Your task to perform on an android device: toggle sleep mode Image 0: 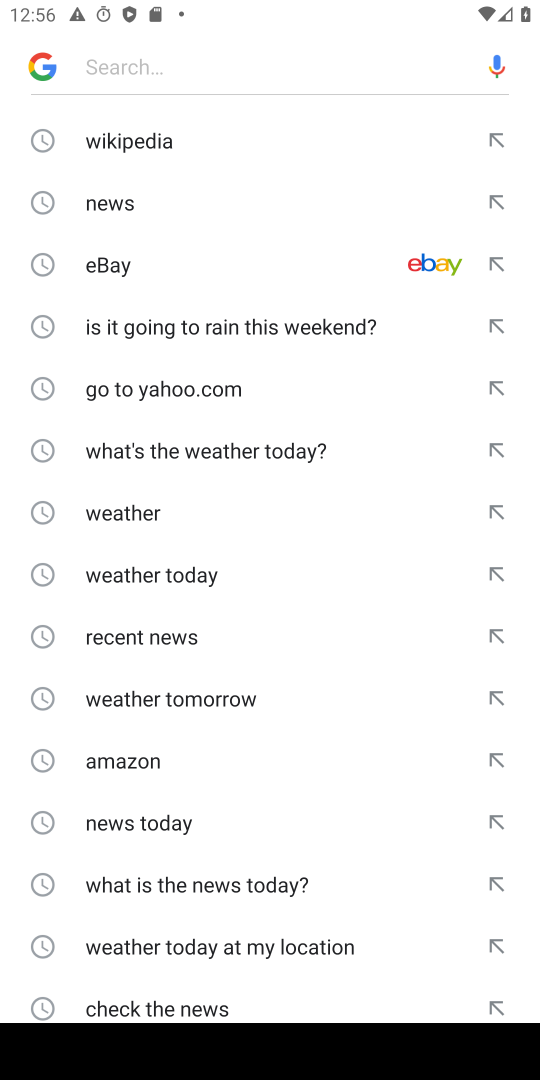
Step 0: press home button
Your task to perform on an android device: toggle sleep mode Image 1: 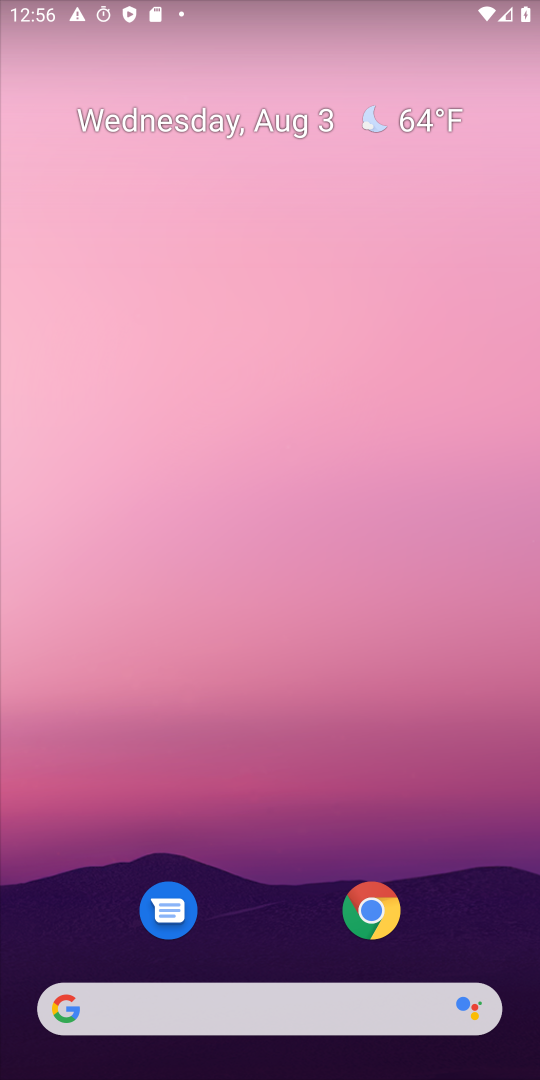
Step 1: drag from (265, 745) to (384, 4)
Your task to perform on an android device: toggle sleep mode Image 2: 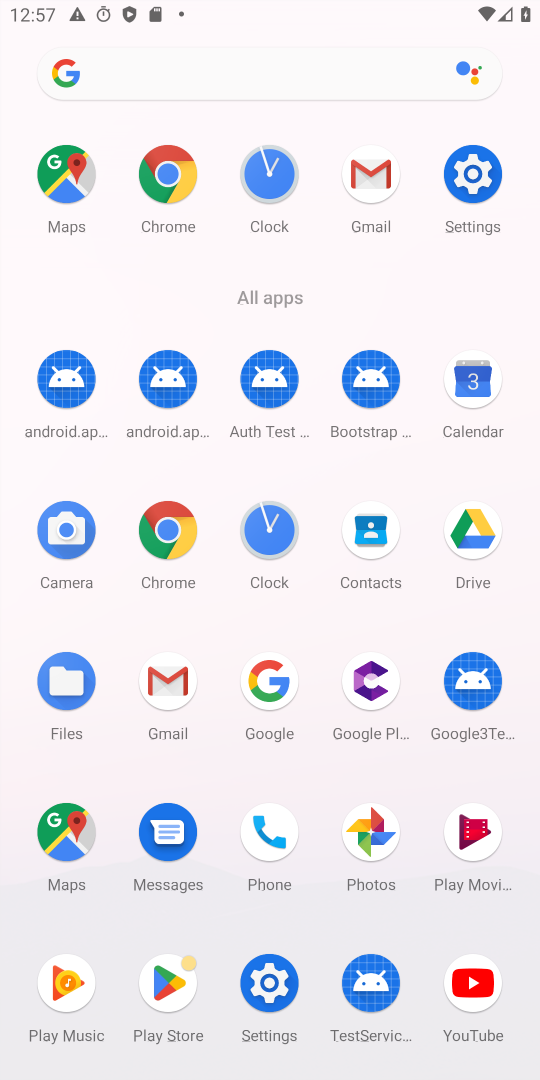
Step 2: click (484, 162)
Your task to perform on an android device: toggle sleep mode Image 3: 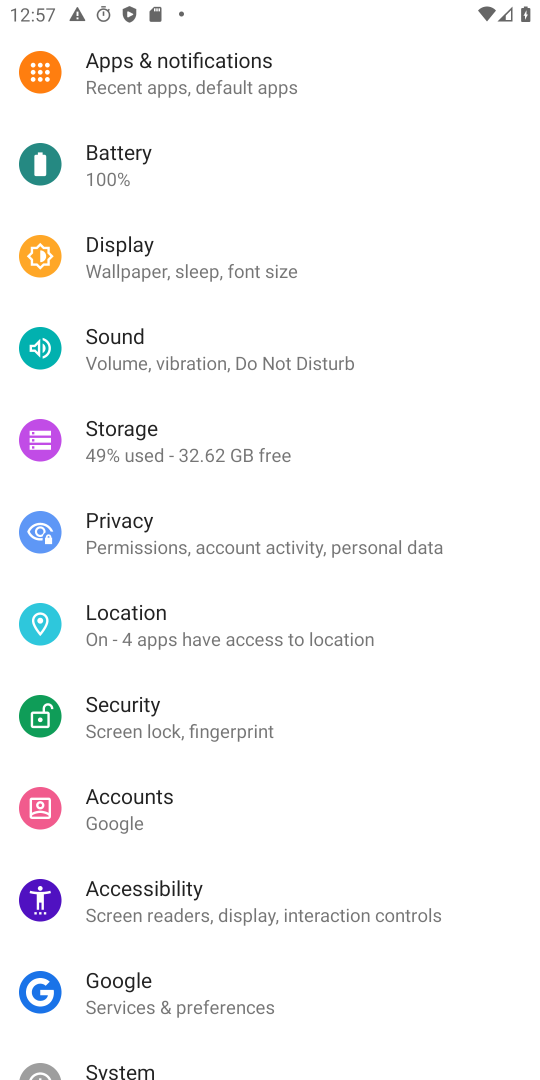
Step 3: drag from (297, 220) to (313, 463)
Your task to perform on an android device: toggle sleep mode Image 4: 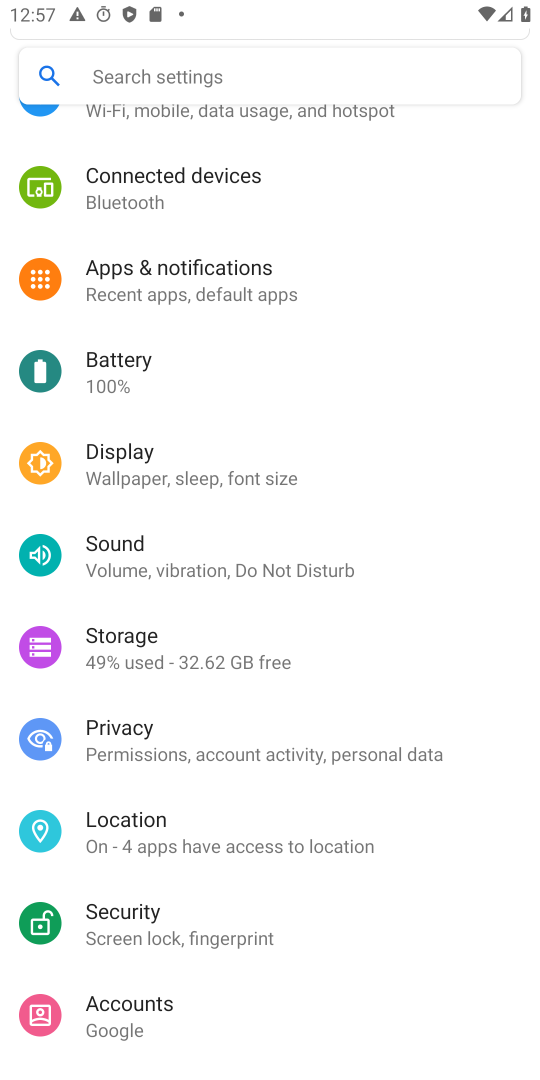
Step 4: click (152, 469)
Your task to perform on an android device: toggle sleep mode Image 5: 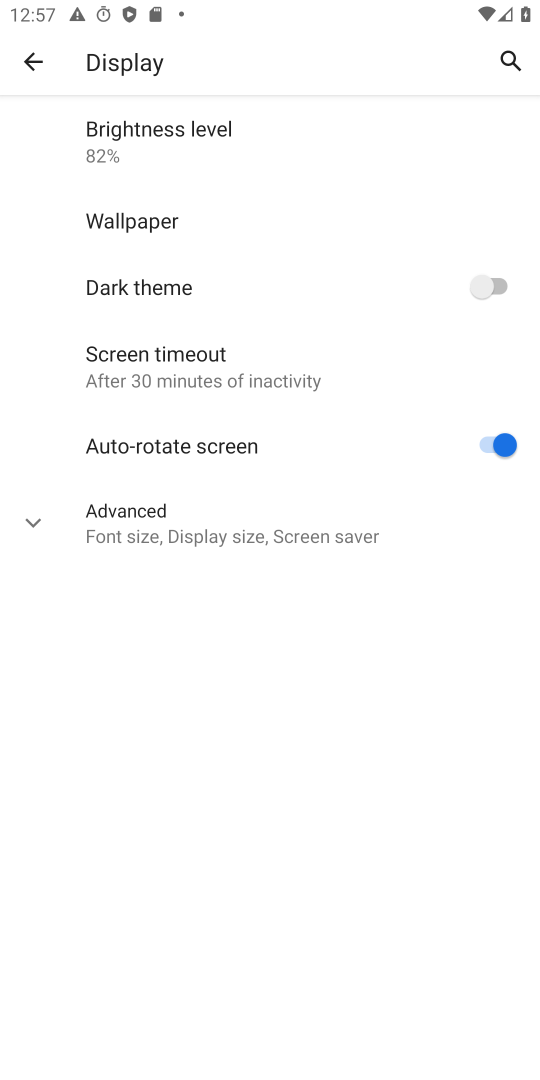
Step 5: task complete